Your task to perform on an android device: Go to internet settings Image 0: 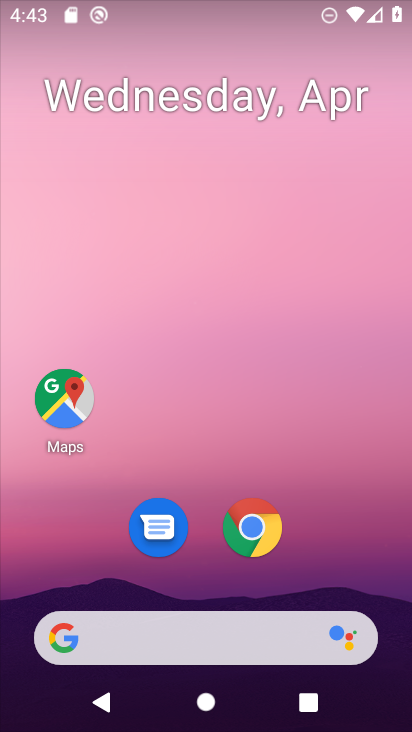
Step 0: drag from (388, 434) to (397, 51)
Your task to perform on an android device: Go to internet settings Image 1: 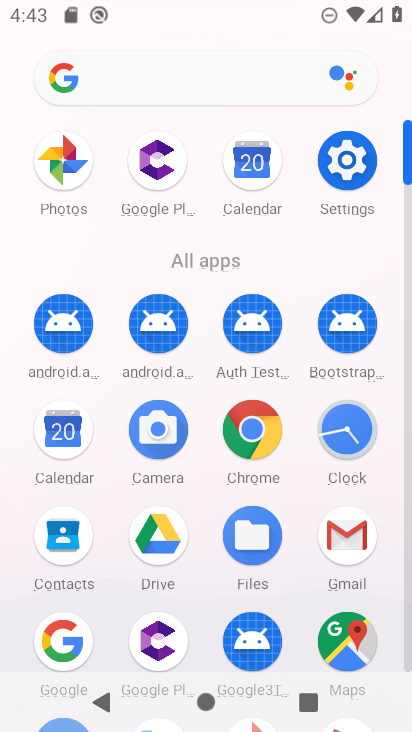
Step 1: click (347, 160)
Your task to perform on an android device: Go to internet settings Image 2: 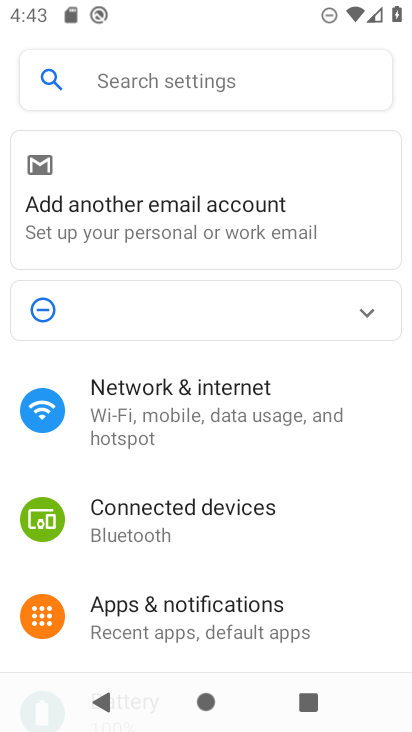
Step 2: click (155, 420)
Your task to perform on an android device: Go to internet settings Image 3: 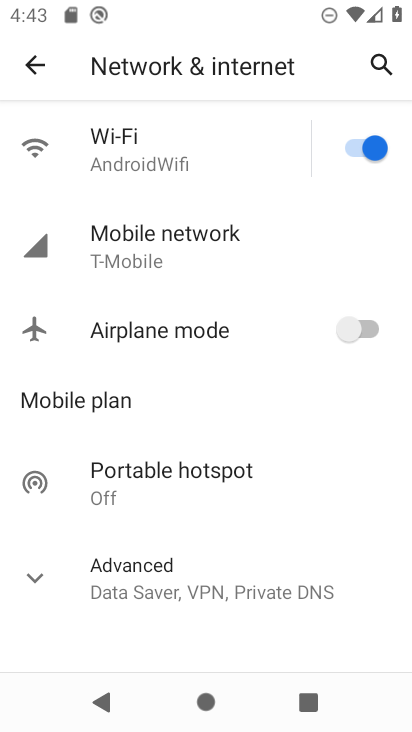
Step 3: task complete